Your task to perform on an android device: open wifi settings Image 0: 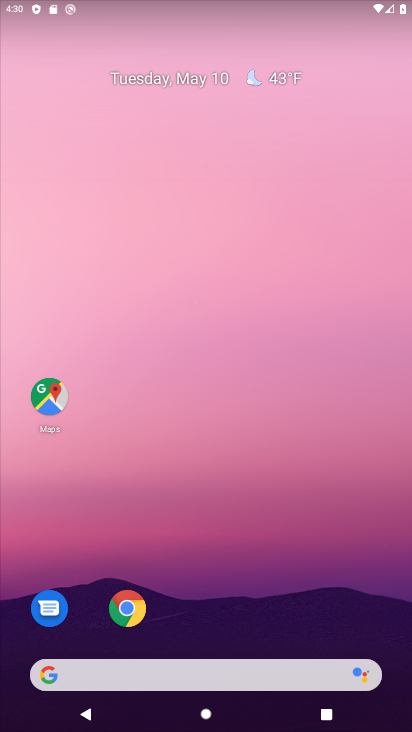
Step 0: drag from (61, 6) to (120, 545)
Your task to perform on an android device: open wifi settings Image 1: 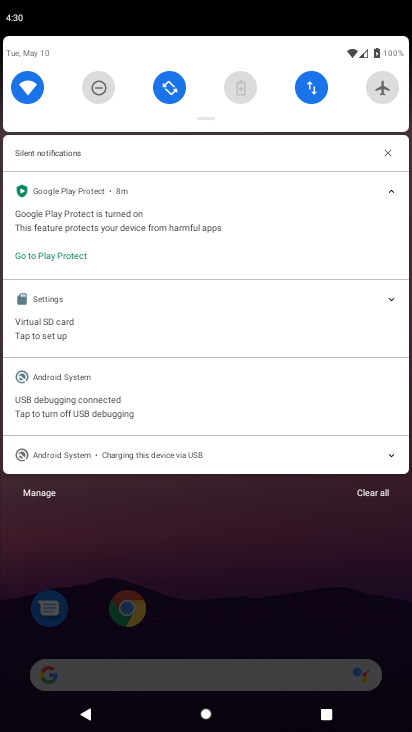
Step 1: click (29, 87)
Your task to perform on an android device: open wifi settings Image 2: 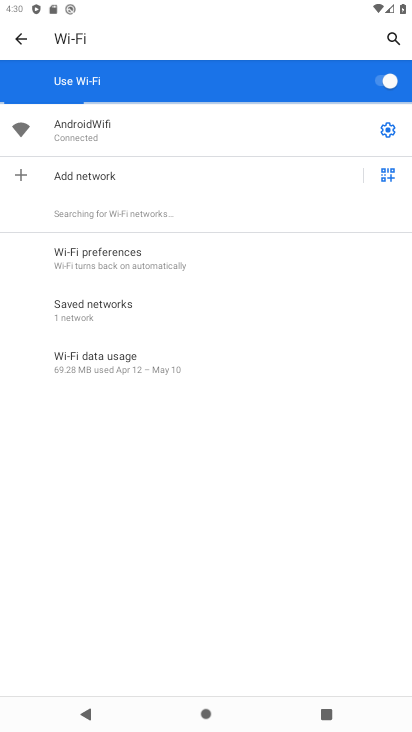
Step 2: task complete